Your task to perform on an android device: Go to Reddit.com Image 0: 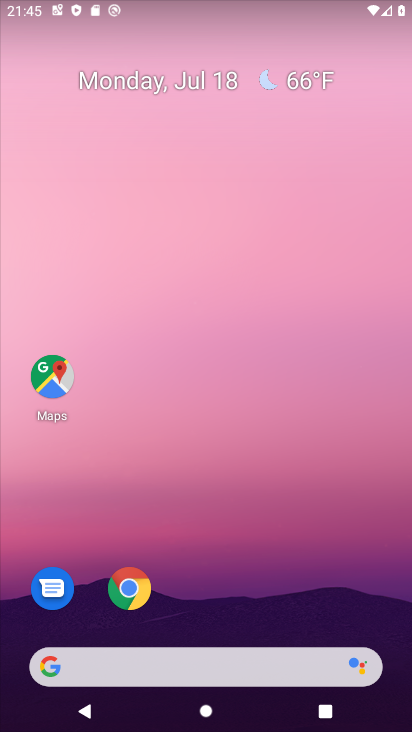
Step 0: press home button
Your task to perform on an android device: Go to Reddit.com Image 1: 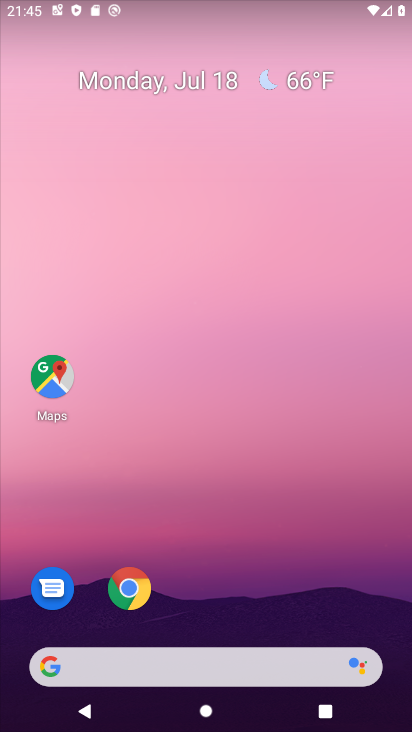
Step 1: click (130, 595)
Your task to perform on an android device: Go to Reddit.com Image 2: 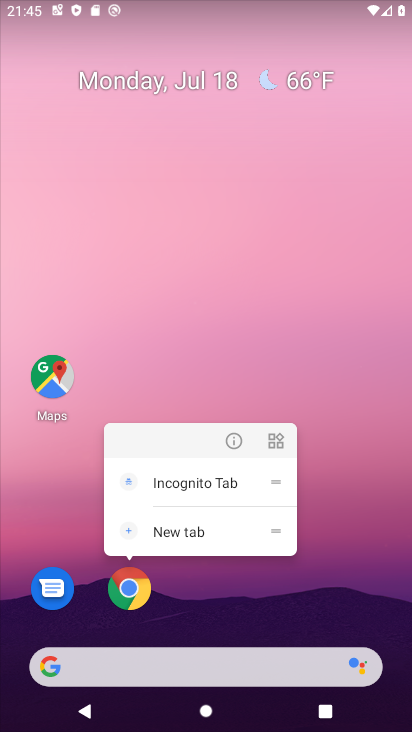
Step 2: click (133, 592)
Your task to perform on an android device: Go to Reddit.com Image 3: 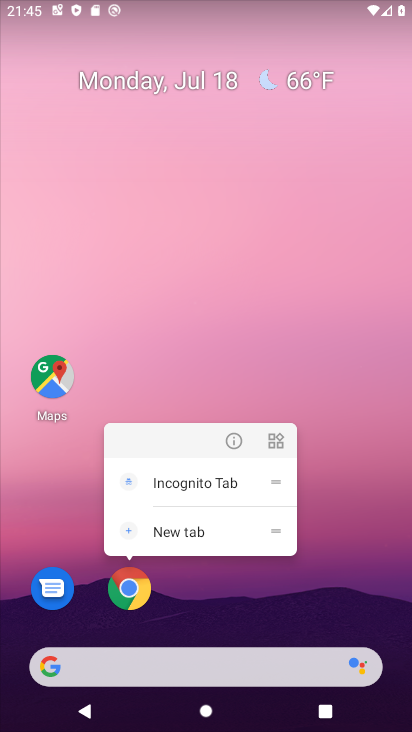
Step 3: click (133, 594)
Your task to perform on an android device: Go to Reddit.com Image 4: 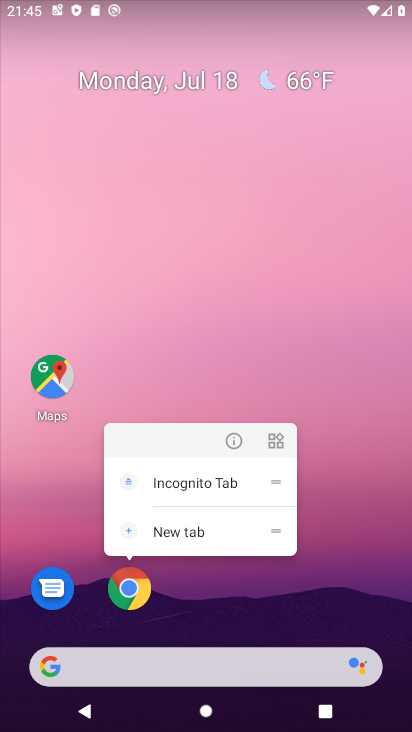
Step 4: click (130, 594)
Your task to perform on an android device: Go to Reddit.com Image 5: 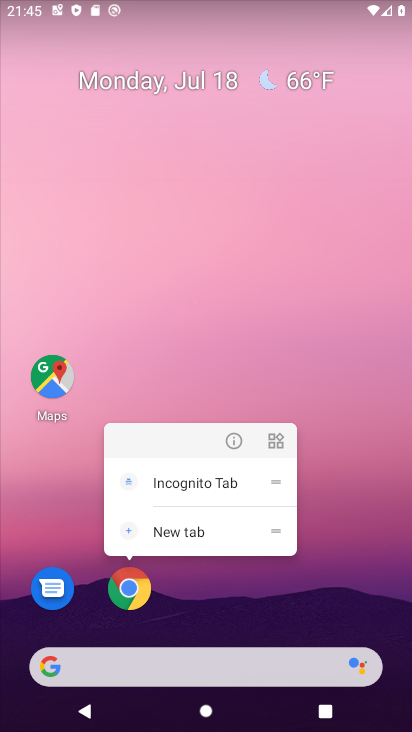
Step 5: click (125, 598)
Your task to perform on an android device: Go to Reddit.com Image 6: 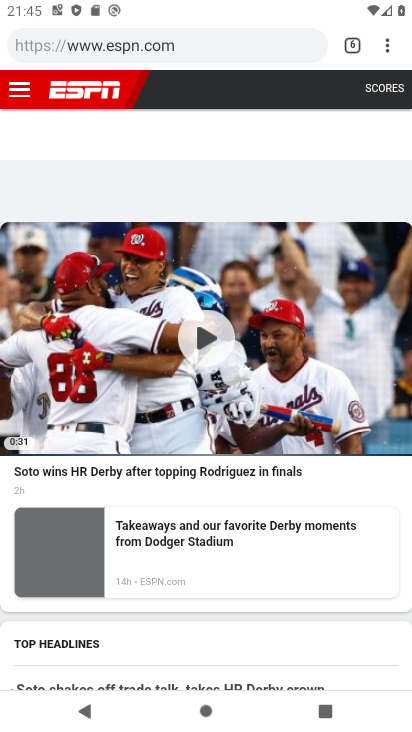
Step 6: drag from (385, 45) to (301, 93)
Your task to perform on an android device: Go to Reddit.com Image 7: 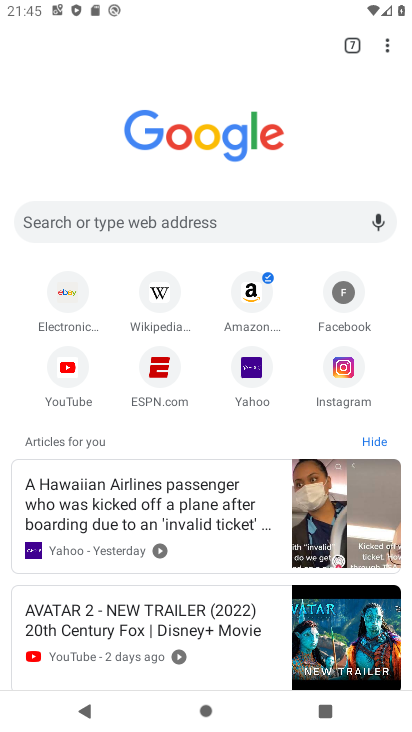
Step 7: click (151, 215)
Your task to perform on an android device: Go to Reddit.com Image 8: 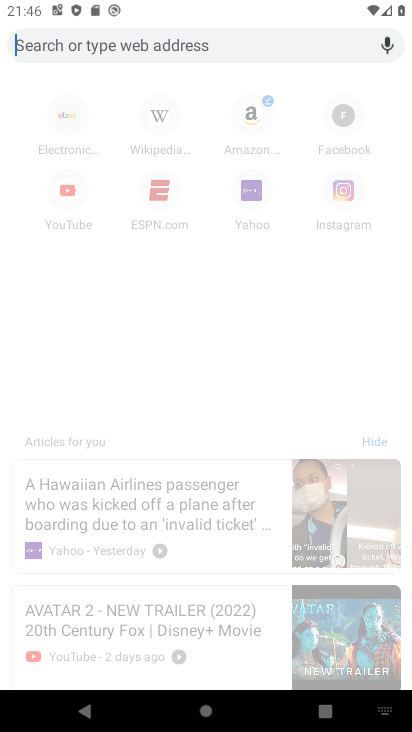
Step 8: type "reddit.com"
Your task to perform on an android device: Go to Reddit.com Image 9: 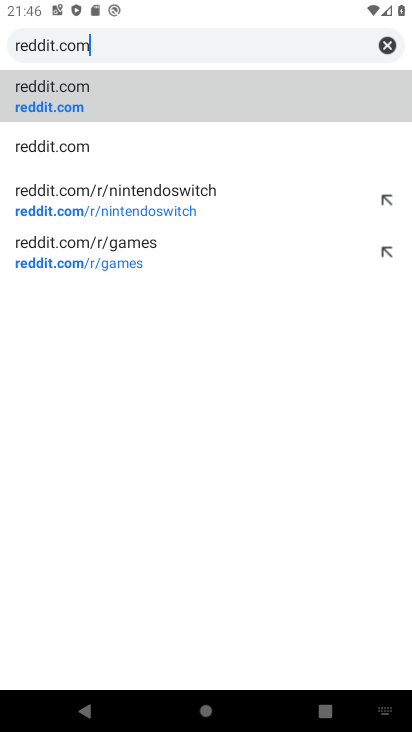
Step 9: click (69, 106)
Your task to perform on an android device: Go to Reddit.com Image 10: 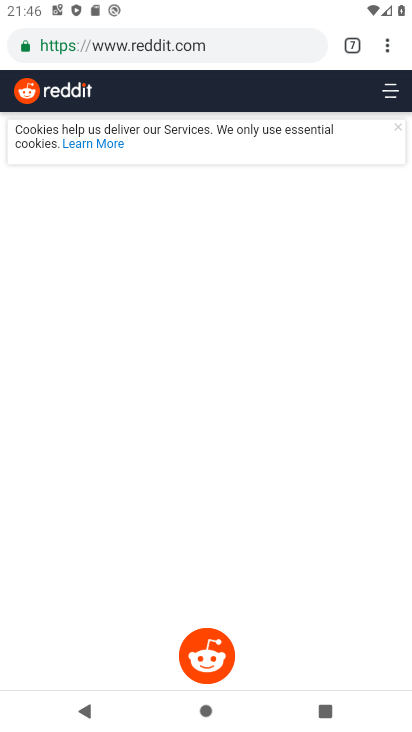
Step 10: task complete